Your task to perform on an android device: clear history in the chrome app Image 0: 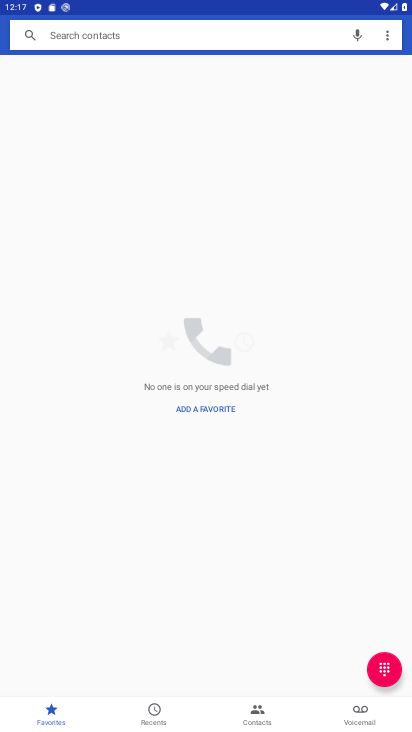
Step 0: press home button
Your task to perform on an android device: clear history in the chrome app Image 1: 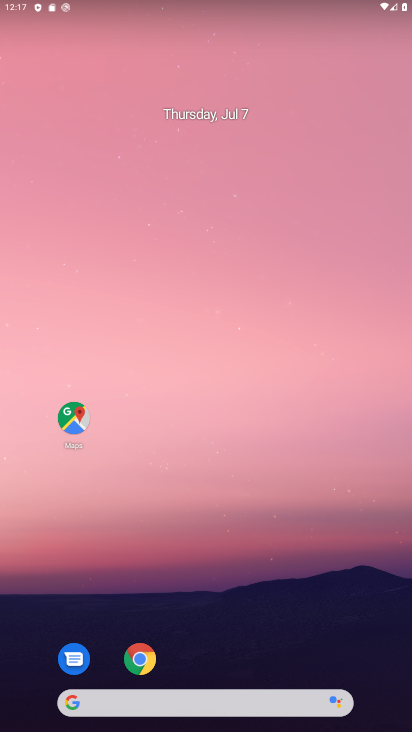
Step 1: click (134, 653)
Your task to perform on an android device: clear history in the chrome app Image 2: 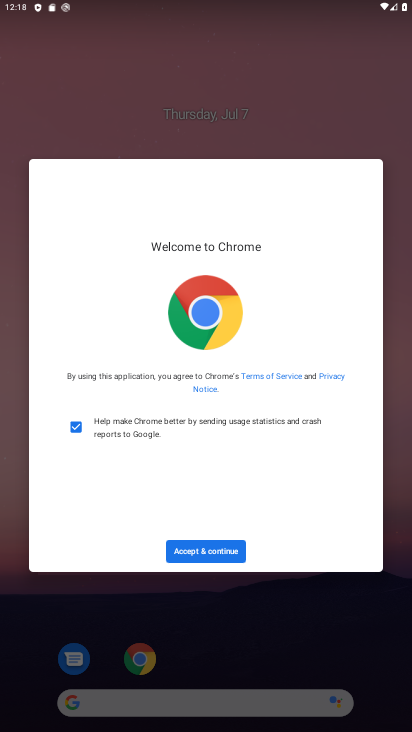
Step 2: click (205, 551)
Your task to perform on an android device: clear history in the chrome app Image 3: 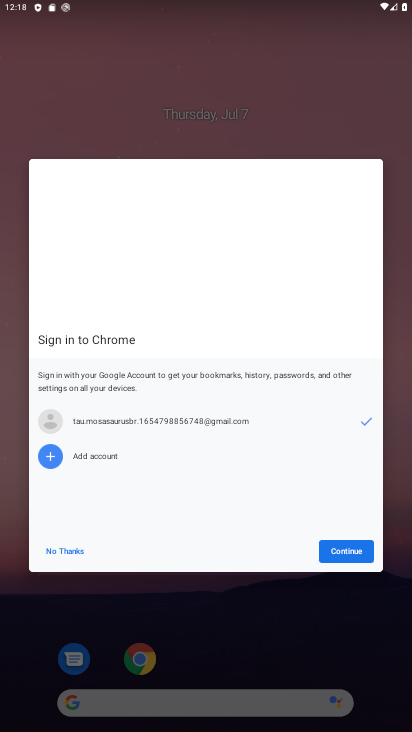
Step 3: click (342, 549)
Your task to perform on an android device: clear history in the chrome app Image 4: 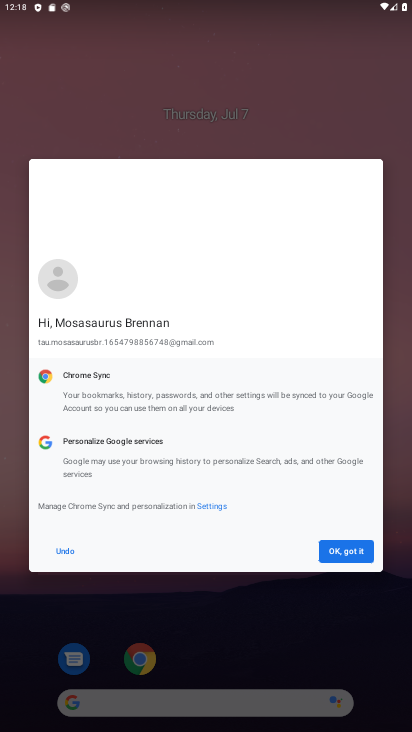
Step 4: click (342, 549)
Your task to perform on an android device: clear history in the chrome app Image 5: 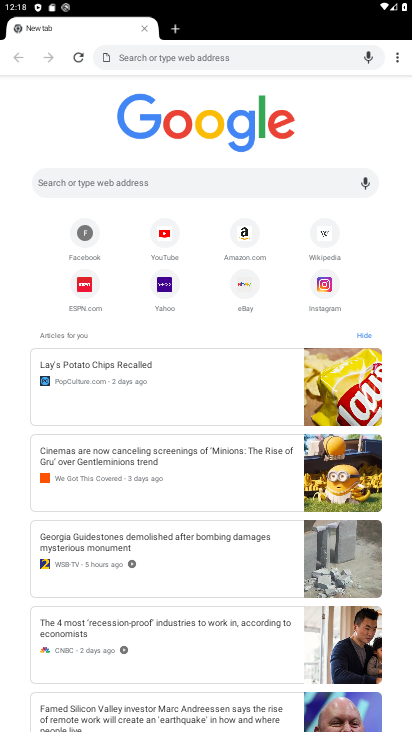
Step 5: click (396, 57)
Your task to perform on an android device: clear history in the chrome app Image 6: 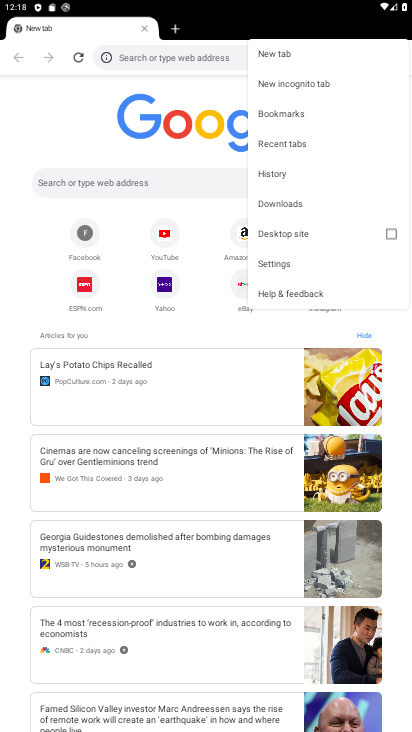
Step 6: click (277, 170)
Your task to perform on an android device: clear history in the chrome app Image 7: 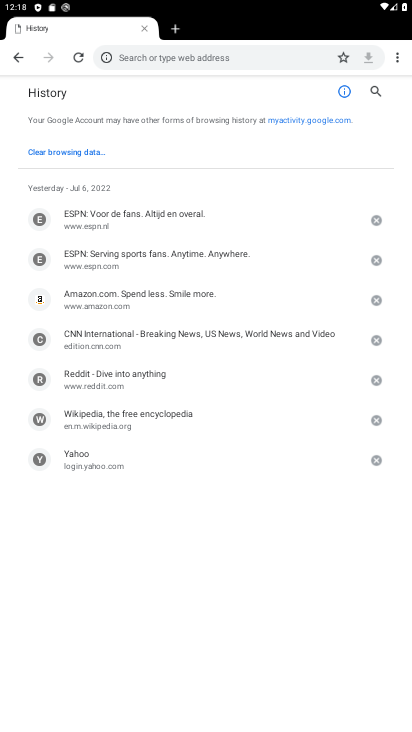
Step 7: click (74, 153)
Your task to perform on an android device: clear history in the chrome app Image 8: 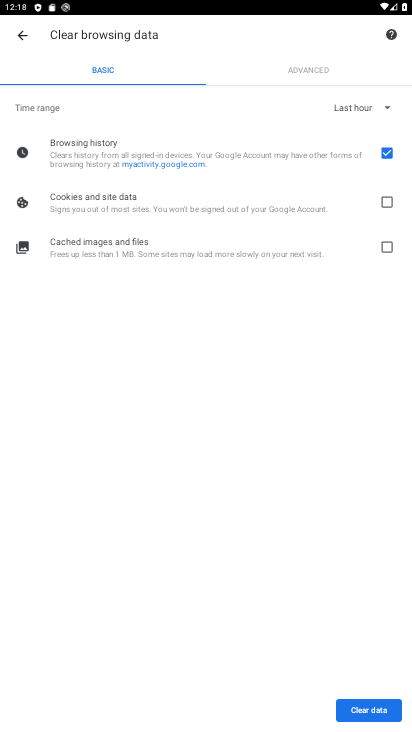
Step 8: click (388, 106)
Your task to perform on an android device: clear history in the chrome app Image 9: 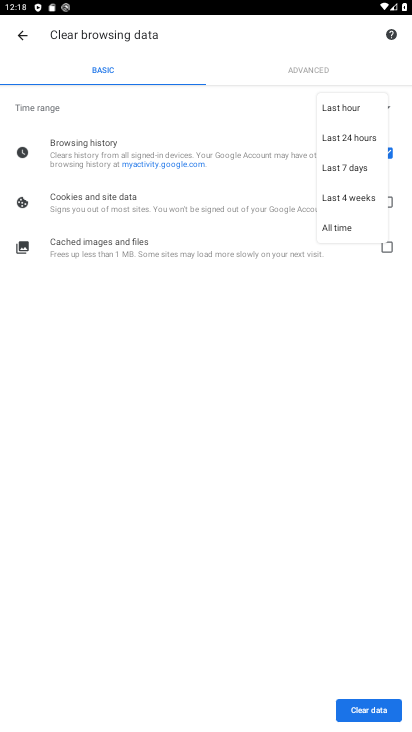
Step 9: click (359, 224)
Your task to perform on an android device: clear history in the chrome app Image 10: 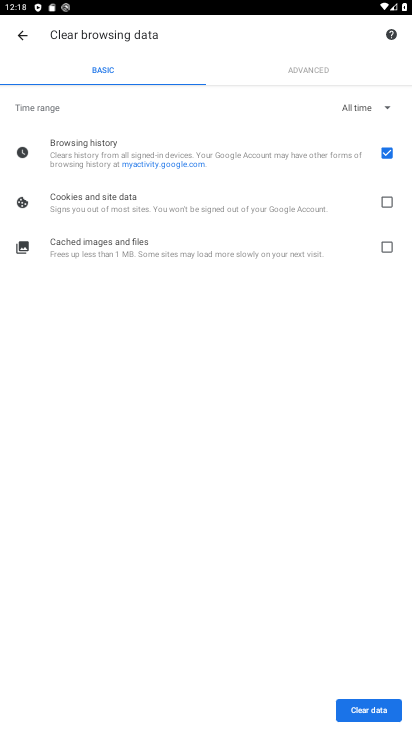
Step 10: click (371, 711)
Your task to perform on an android device: clear history in the chrome app Image 11: 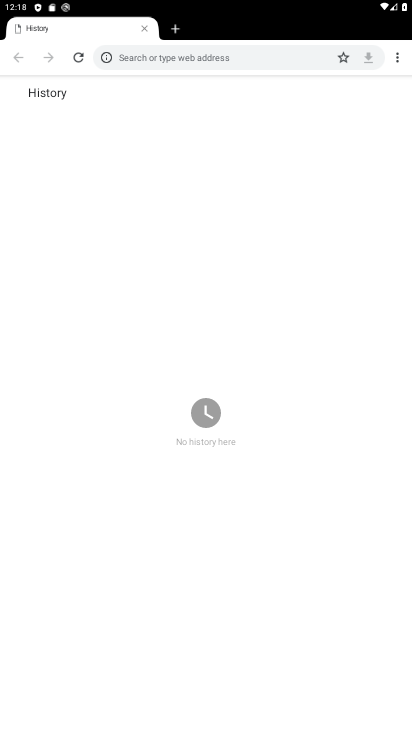
Step 11: task complete